Your task to perform on an android device: Go to sound settings Image 0: 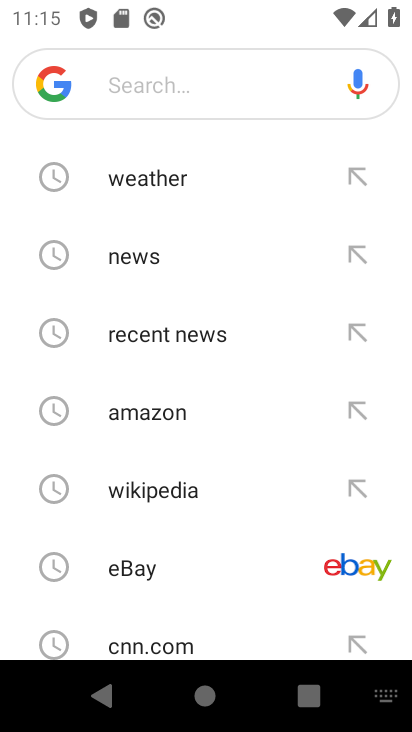
Step 0: press back button
Your task to perform on an android device: Go to sound settings Image 1: 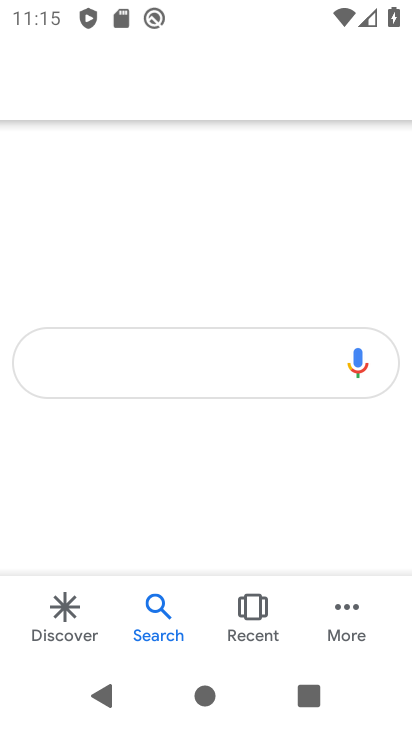
Step 1: press back button
Your task to perform on an android device: Go to sound settings Image 2: 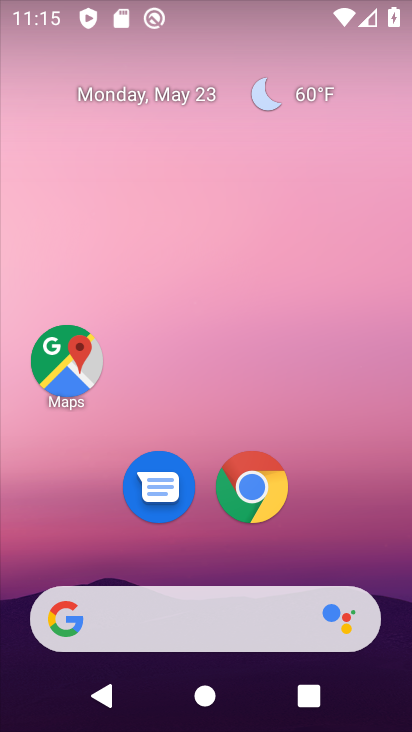
Step 2: drag from (143, 580) to (266, 22)
Your task to perform on an android device: Go to sound settings Image 3: 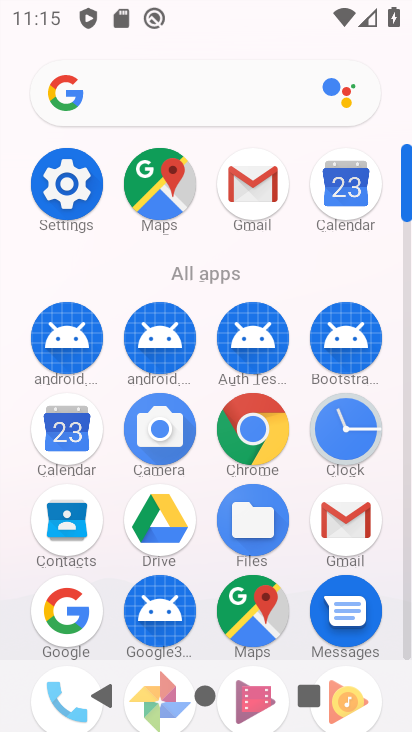
Step 3: drag from (158, 627) to (261, 291)
Your task to perform on an android device: Go to sound settings Image 4: 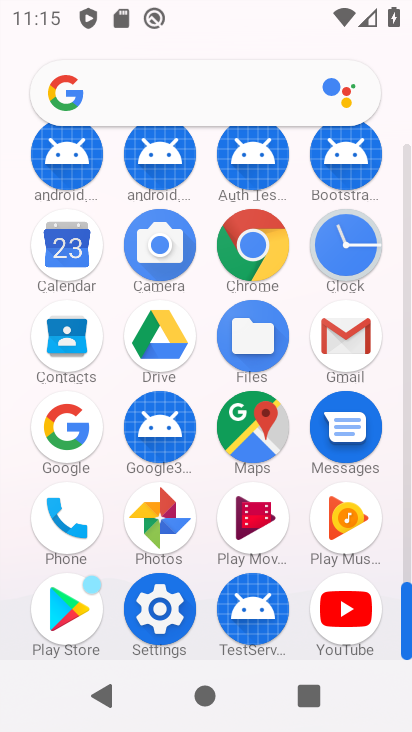
Step 4: click (160, 621)
Your task to perform on an android device: Go to sound settings Image 5: 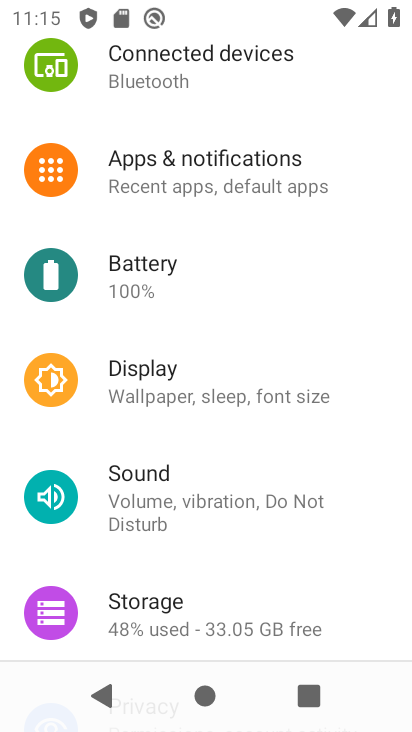
Step 5: click (155, 505)
Your task to perform on an android device: Go to sound settings Image 6: 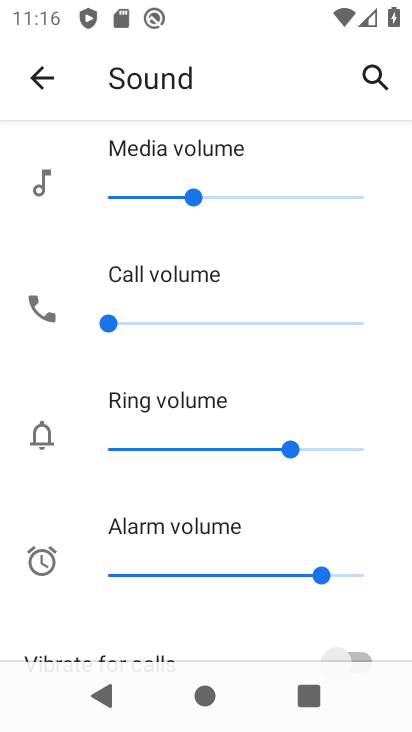
Step 6: task complete